Your task to perform on an android device: add a contact in the contacts app Image 0: 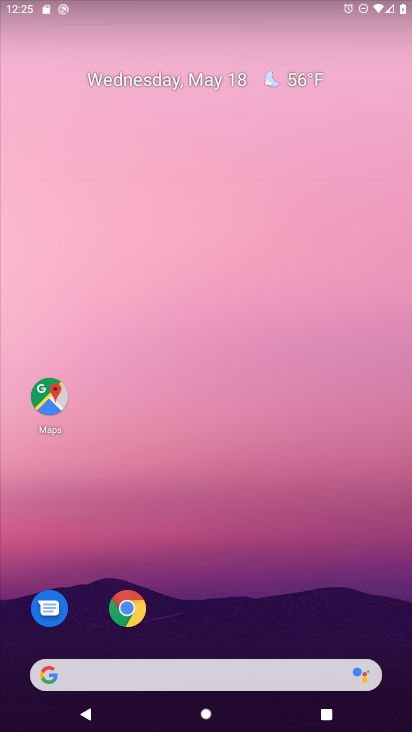
Step 0: drag from (259, 695) to (270, 329)
Your task to perform on an android device: add a contact in the contacts app Image 1: 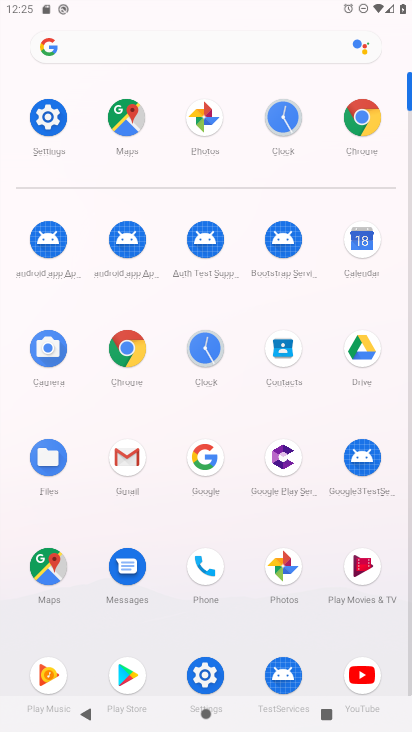
Step 1: click (206, 578)
Your task to perform on an android device: add a contact in the contacts app Image 2: 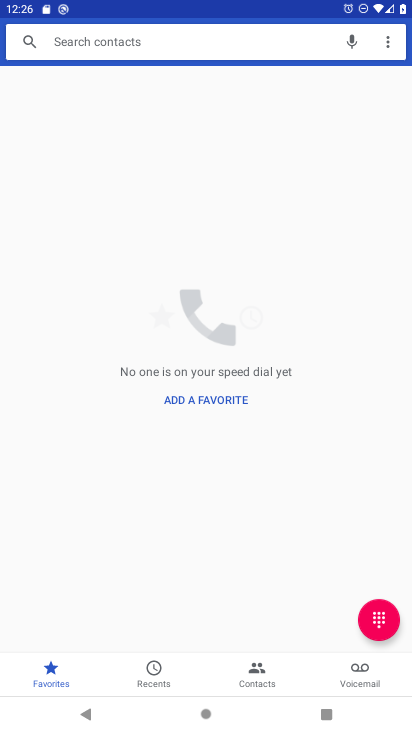
Step 2: click (264, 667)
Your task to perform on an android device: add a contact in the contacts app Image 3: 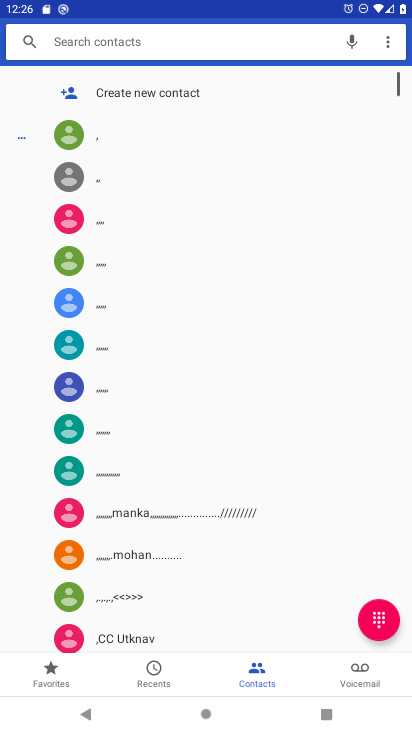
Step 3: click (135, 95)
Your task to perform on an android device: add a contact in the contacts app Image 4: 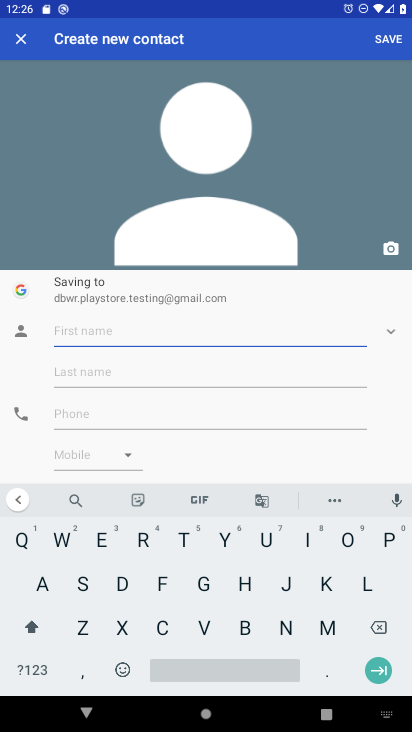
Step 4: click (149, 544)
Your task to perform on an android device: add a contact in the contacts app Image 5: 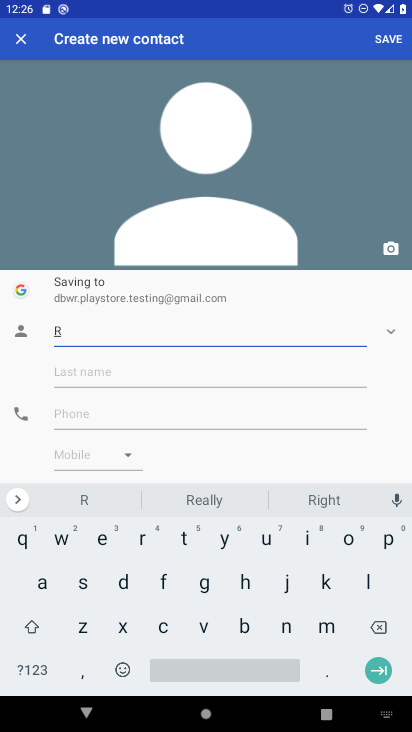
Step 5: click (344, 545)
Your task to perform on an android device: add a contact in the contacts app Image 6: 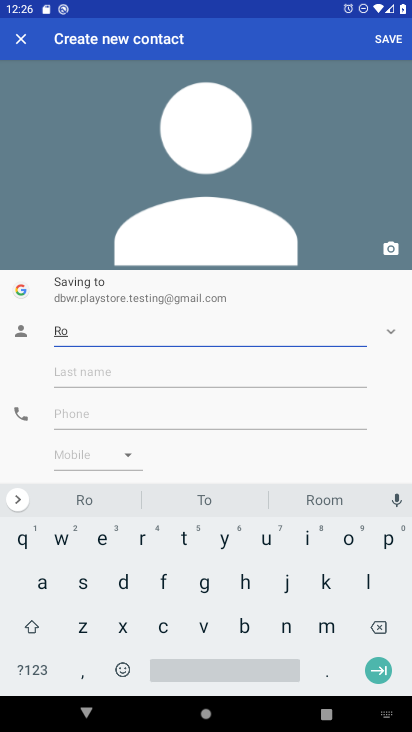
Step 6: click (241, 588)
Your task to perform on an android device: add a contact in the contacts app Image 7: 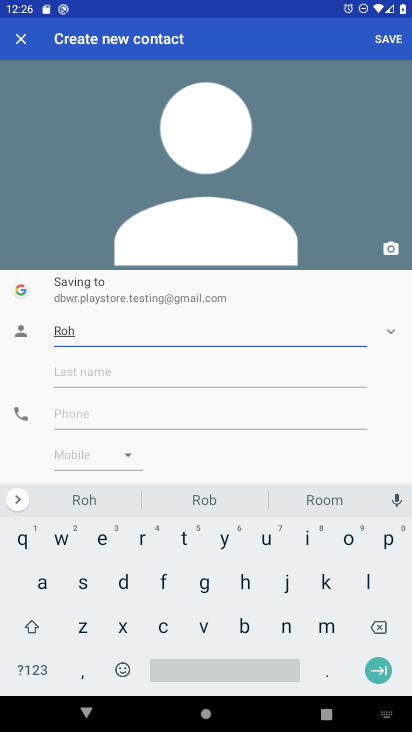
Step 7: click (306, 538)
Your task to perform on an android device: add a contact in the contacts app Image 8: 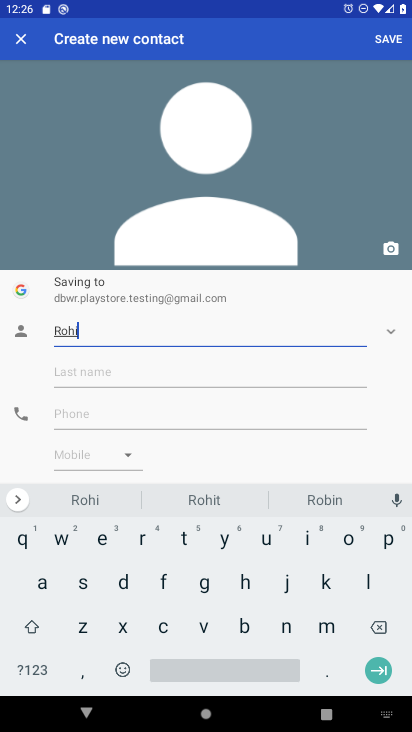
Step 8: click (185, 539)
Your task to perform on an android device: add a contact in the contacts app Image 9: 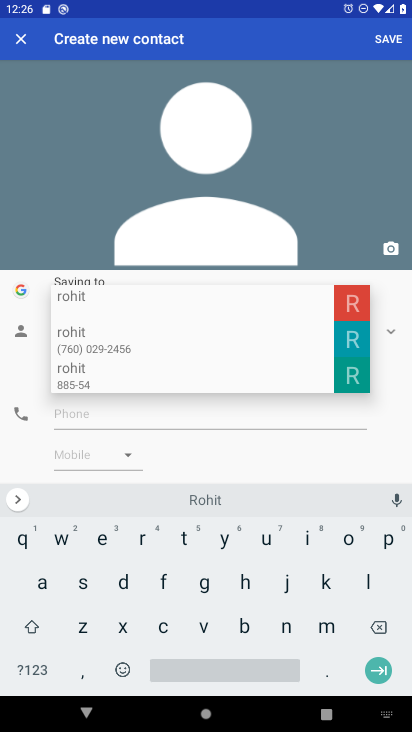
Step 9: click (89, 412)
Your task to perform on an android device: add a contact in the contacts app Image 10: 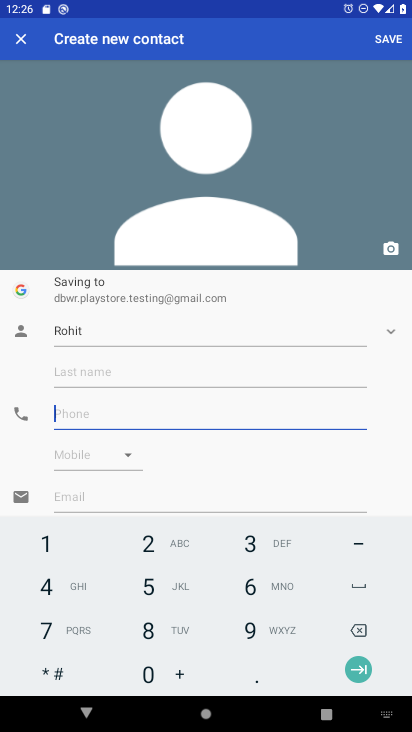
Step 10: click (143, 594)
Your task to perform on an android device: add a contact in the contacts app Image 11: 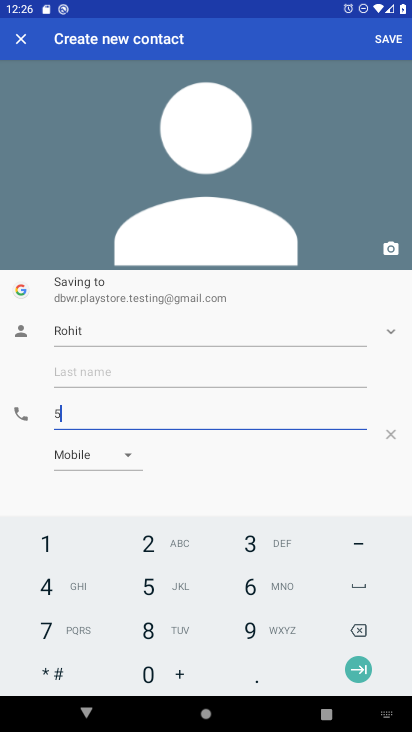
Step 11: click (115, 607)
Your task to perform on an android device: add a contact in the contacts app Image 12: 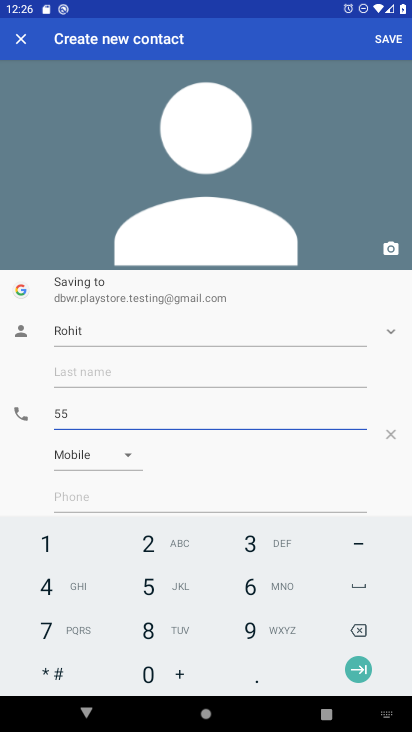
Step 12: click (47, 628)
Your task to perform on an android device: add a contact in the contacts app Image 13: 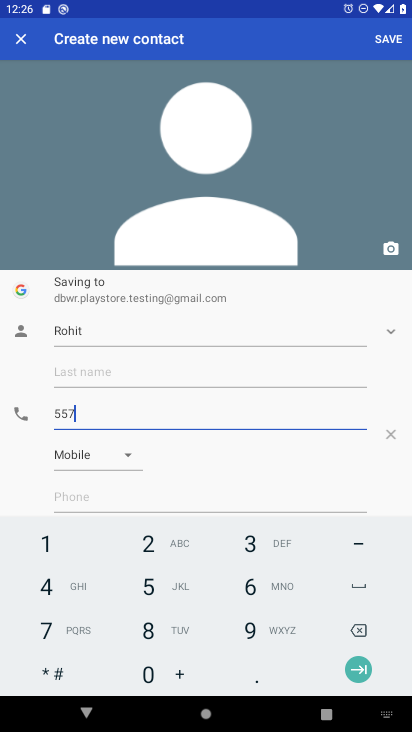
Step 13: click (152, 626)
Your task to perform on an android device: add a contact in the contacts app Image 14: 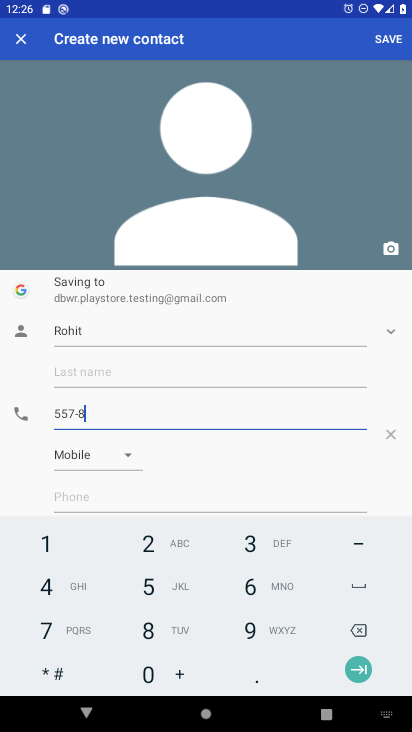
Step 14: click (168, 585)
Your task to perform on an android device: add a contact in the contacts app Image 15: 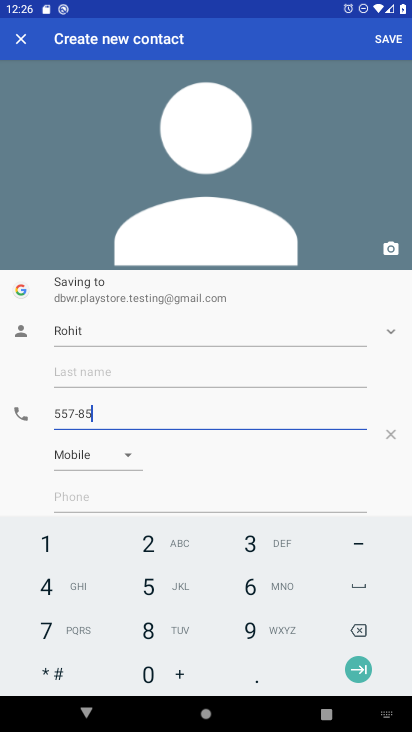
Step 15: click (102, 573)
Your task to perform on an android device: add a contact in the contacts app Image 16: 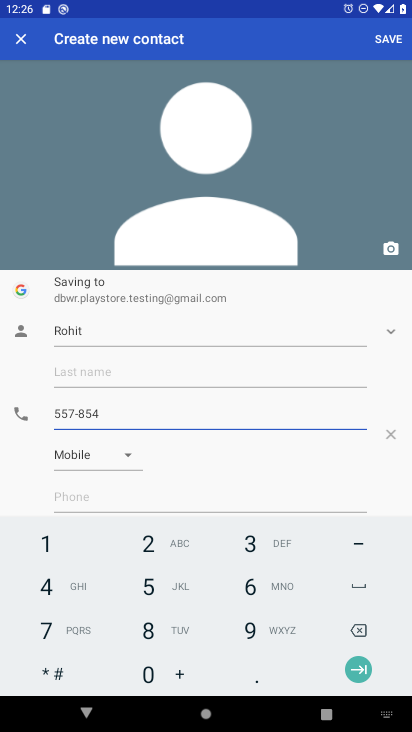
Step 16: click (252, 583)
Your task to perform on an android device: add a contact in the contacts app Image 17: 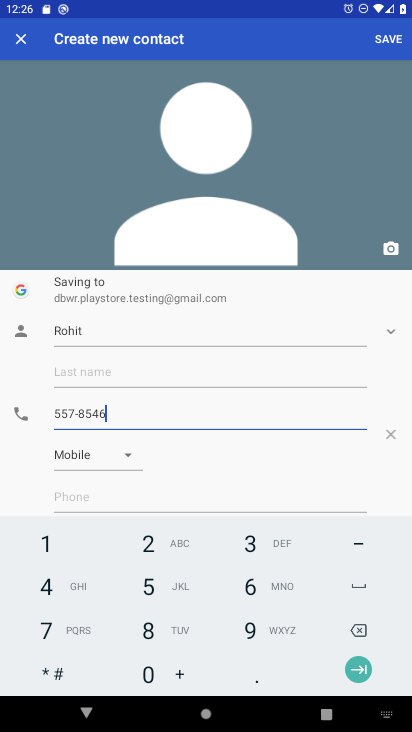
Step 17: click (190, 557)
Your task to perform on an android device: add a contact in the contacts app Image 18: 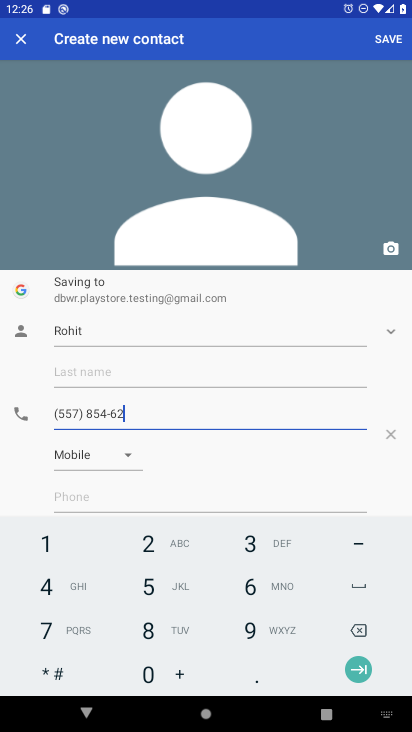
Step 18: click (177, 603)
Your task to perform on an android device: add a contact in the contacts app Image 19: 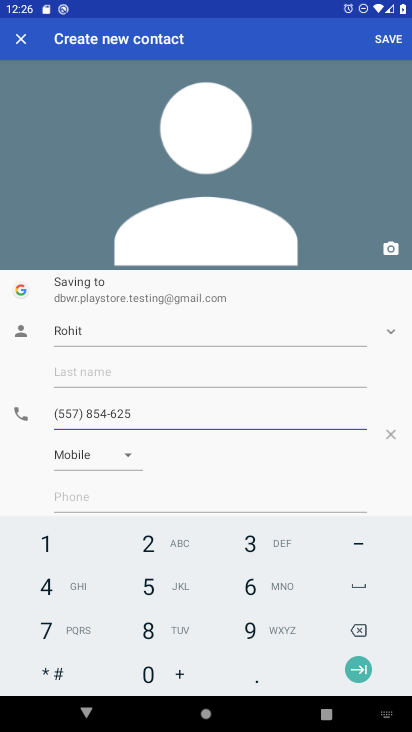
Step 19: click (396, 38)
Your task to perform on an android device: add a contact in the contacts app Image 20: 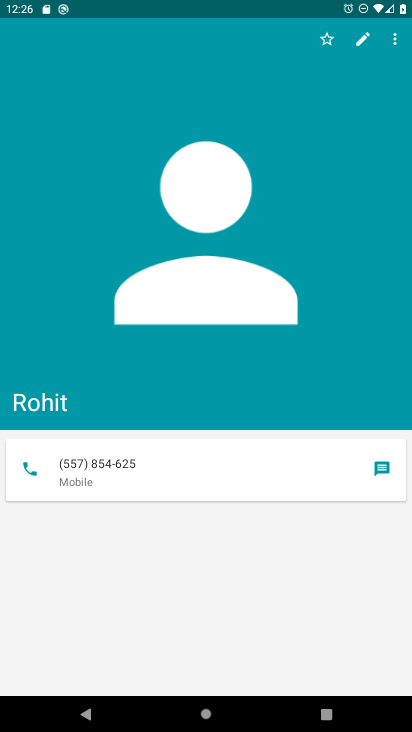
Step 20: task complete